Your task to perform on an android device: Open wifi settings Image 0: 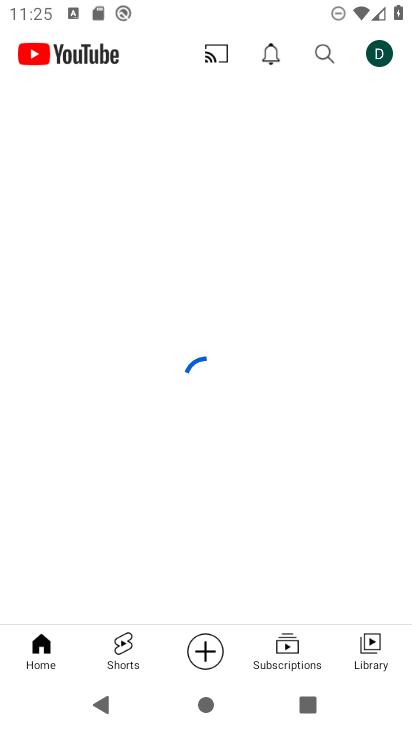
Step 0: press home button
Your task to perform on an android device: Open wifi settings Image 1: 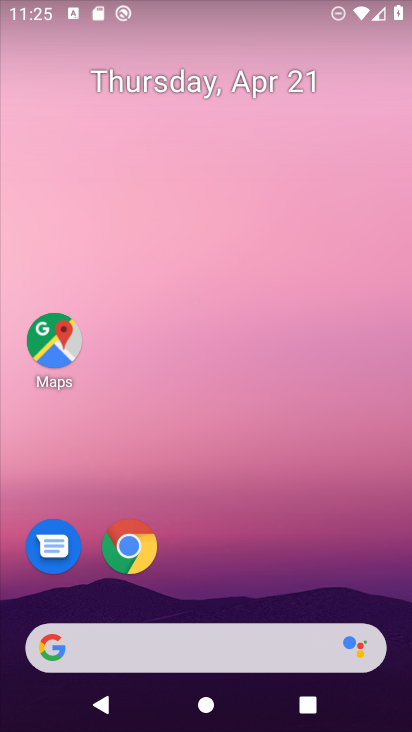
Step 1: drag from (386, 602) to (298, 149)
Your task to perform on an android device: Open wifi settings Image 2: 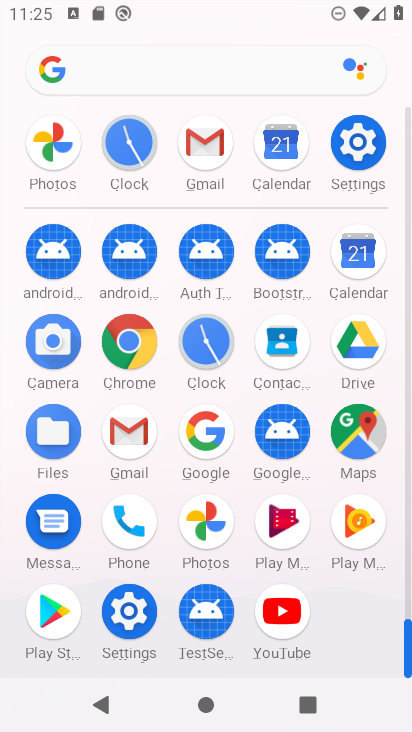
Step 2: click (121, 610)
Your task to perform on an android device: Open wifi settings Image 3: 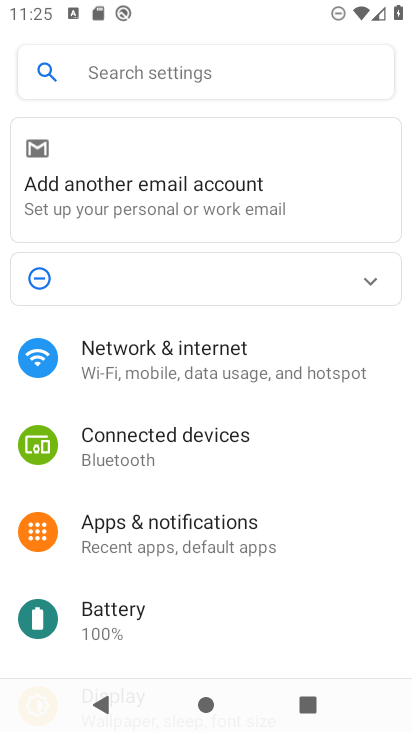
Step 3: click (128, 356)
Your task to perform on an android device: Open wifi settings Image 4: 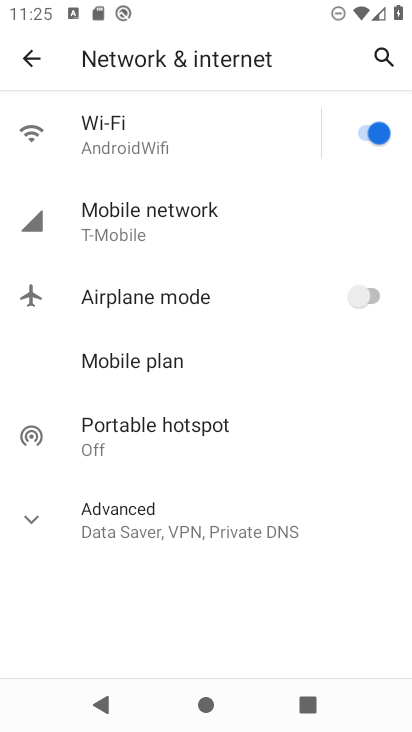
Step 4: click (86, 139)
Your task to perform on an android device: Open wifi settings Image 5: 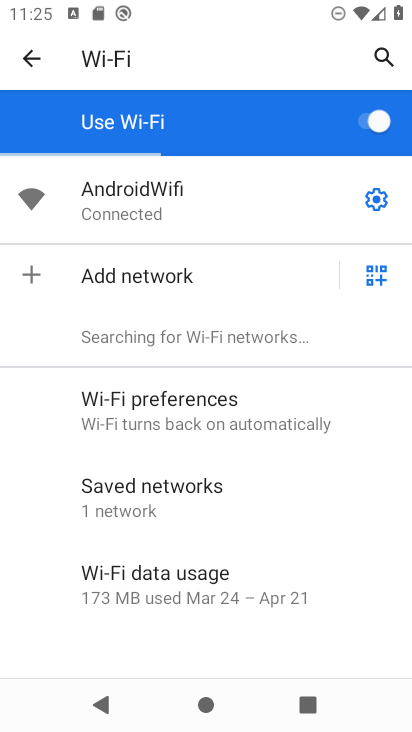
Step 5: click (379, 202)
Your task to perform on an android device: Open wifi settings Image 6: 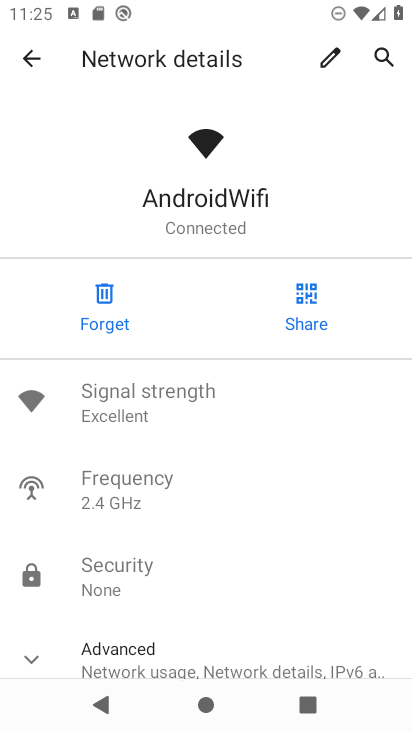
Step 6: task complete